Your task to perform on an android device: Search for "acer nitro" on newegg.com, select the first entry, add it to the cart, then select checkout. Image 0: 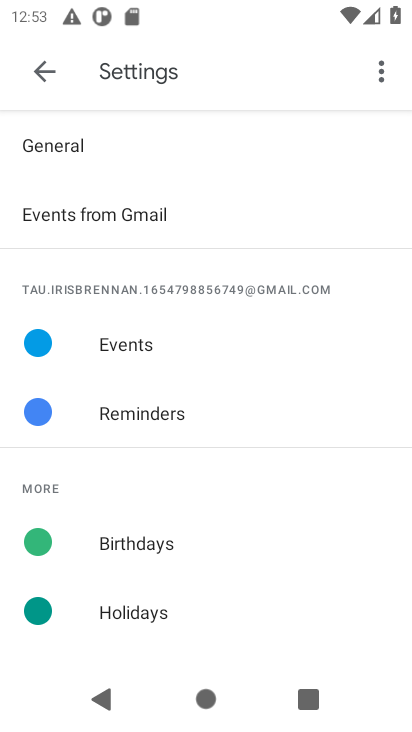
Step 0: press home button
Your task to perform on an android device: Search for "acer nitro" on newegg.com, select the first entry, add it to the cart, then select checkout. Image 1: 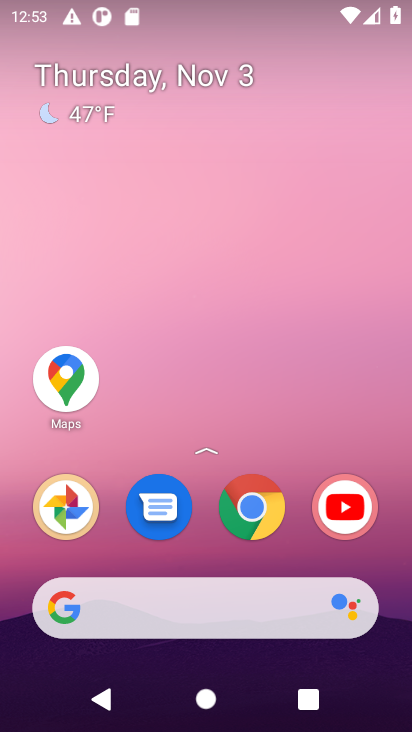
Step 1: click (232, 585)
Your task to perform on an android device: Search for "acer nitro" on newegg.com, select the first entry, add it to the cart, then select checkout. Image 2: 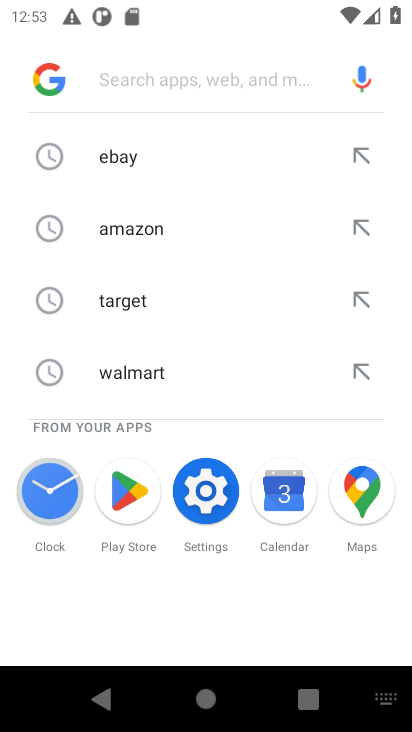
Step 2: type "newegg"
Your task to perform on an android device: Search for "acer nitro" on newegg.com, select the first entry, add it to the cart, then select checkout. Image 3: 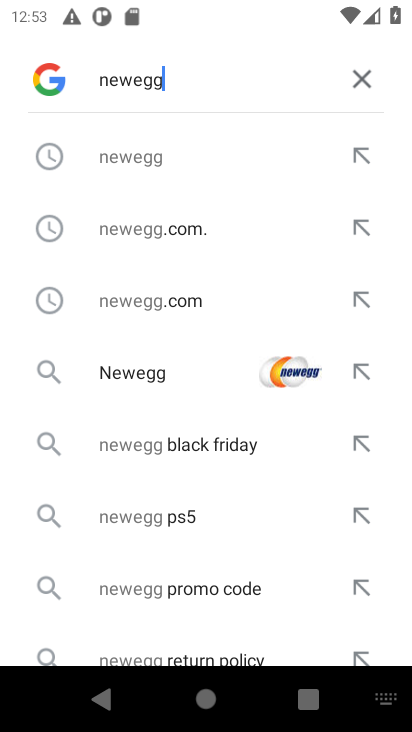
Step 3: click (148, 151)
Your task to perform on an android device: Search for "acer nitro" on newegg.com, select the first entry, add it to the cart, then select checkout. Image 4: 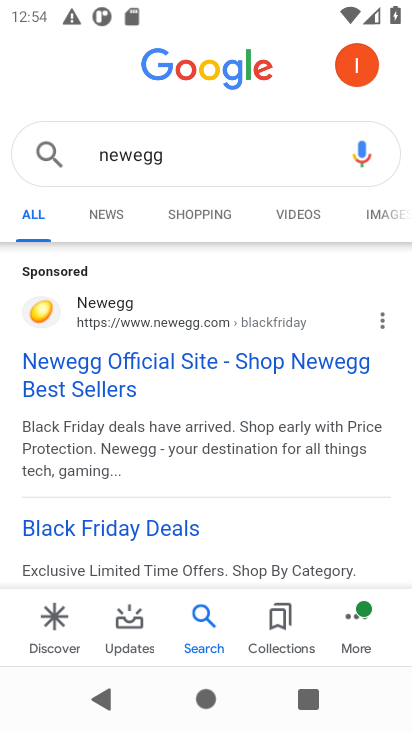
Step 4: click (140, 375)
Your task to perform on an android device: Search for "acer nitro" on newegg.com, select the first entry, add it to the cart, then select checkout. Image 5: 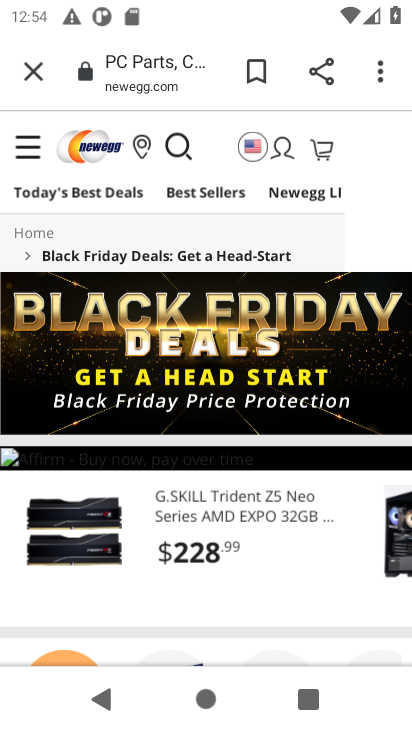
Step 5: click (184, 152)
Your task to perform on an android device: Search for "acer nitro" on newegg.com, select the first entry, add it to the cart, then select checkout. Image 6: 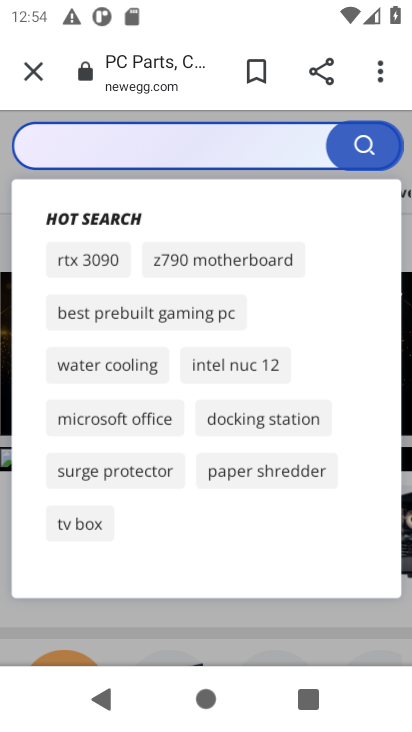
Step 6: type "acer nitro"
Your task to perform on an android device: Search for "acer nitro" on newegg.com, select the first entry, add it to the cart, then select checkout. Image 7: 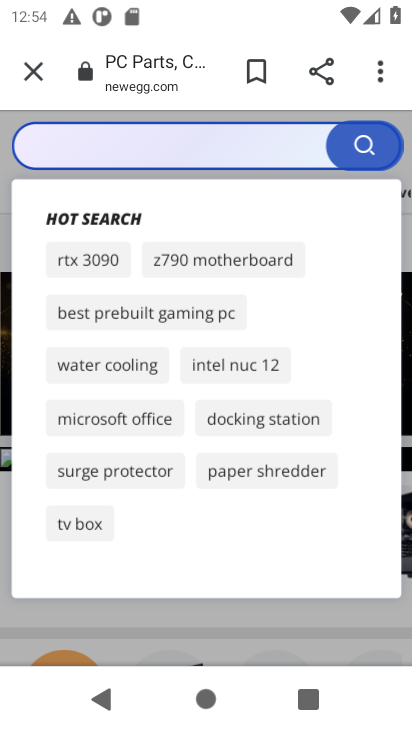
Step 7: click (95, 144)
Your task to perform on an android device: Search for "acer nitro" on newegg.com, select the first entry, add it to the cart, then select checkout. Image 8: 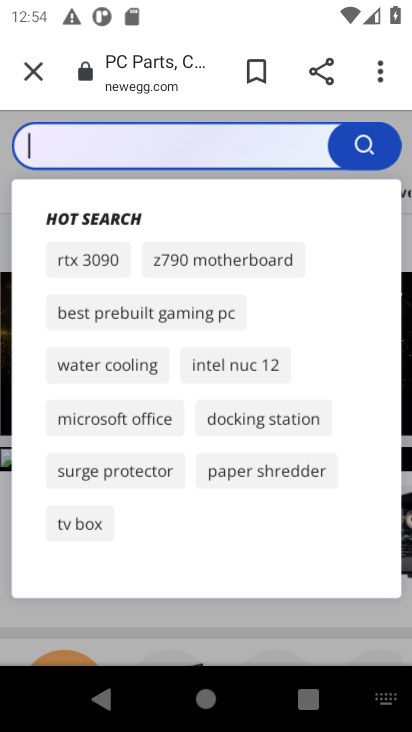
Step 8: type "nitro"
Your task to perform on an android device: Search for "acer nitro" on newegg.com, select the first entry, add it to the cart, then select checkout. Image 9: 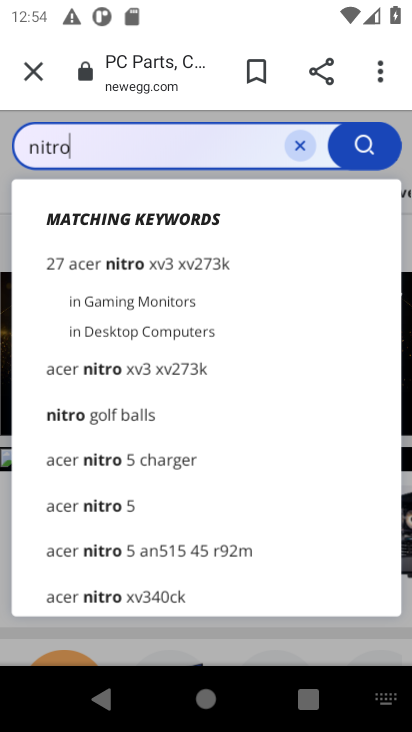
Step 9: type "  acer"
Your task to perform on an android device: Search for "acer nitro" on newegg.com, select the first entry, add it to the cart, then select checkout. Image 10: 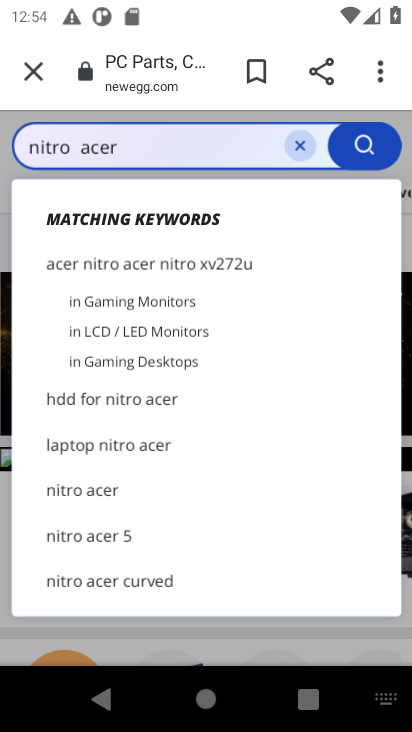
Step 10: click (352, 154)
Your task to perform on an android device: Search for "acer nitro" on newegg.com, select the first entry, add it to the cart, then select checkout. Image 11: 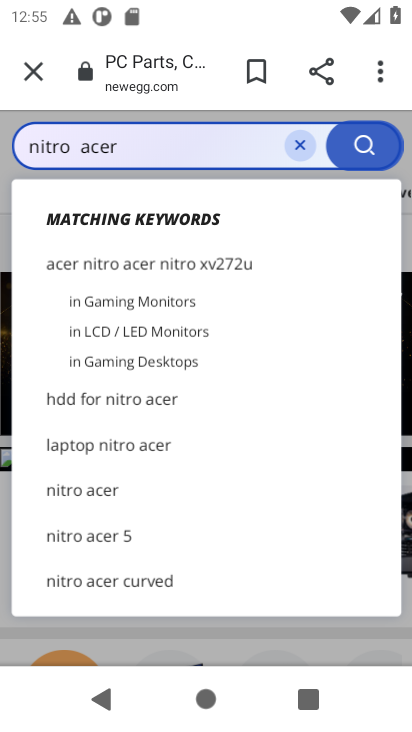
Step 11: click (221, 270)
Your task to perform on an android device: Search for "acer nitro" on newegg.com, select the first entry, add it to the cart, then select checkout. Image 12: 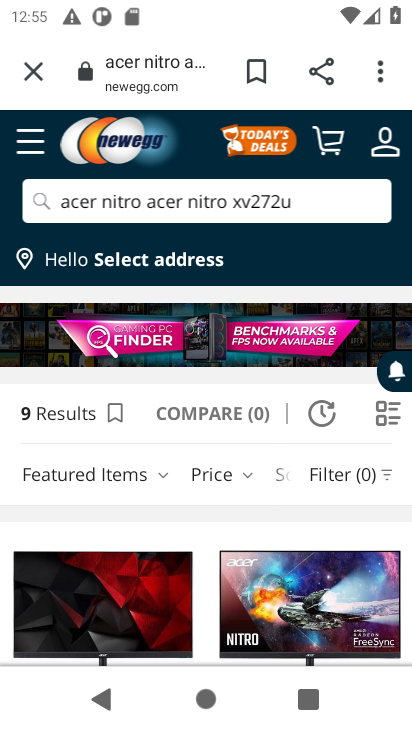
Step 12: task complete